Your task to perform on an android device: turn on translation in the chrome app Image 0: 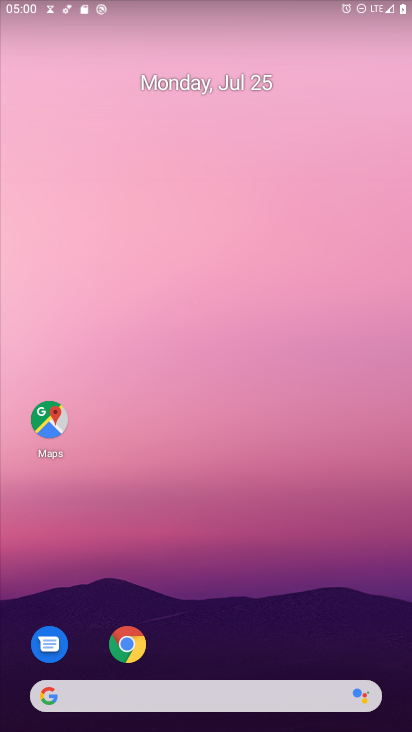
Step 0: press home button
Your task to perform on an android device: turn on translation in the chrome app Image 1: 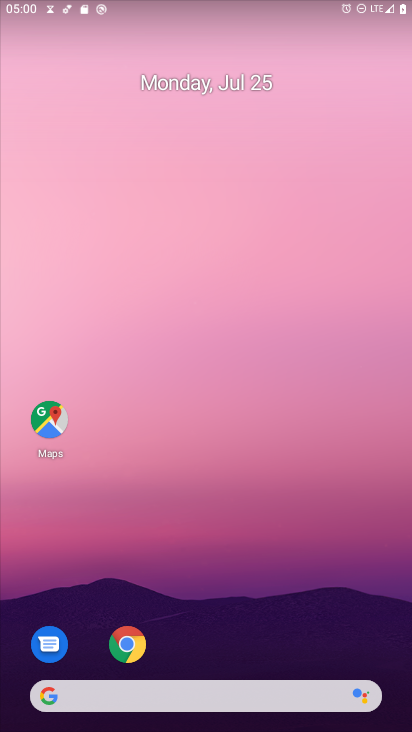
Step 1: click (130, 642)
Your task to perform on an android device: turn on translation in the chrome app Image 2: 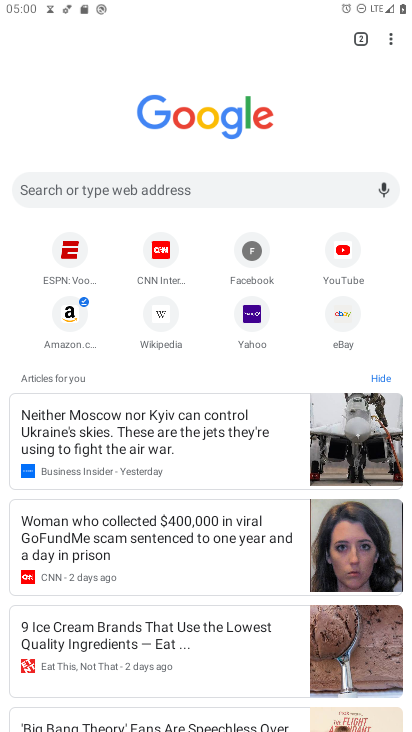
Step 2: click (385, 32)
Your task to perform on an android device: turn on translation in the chrome app Image 3: 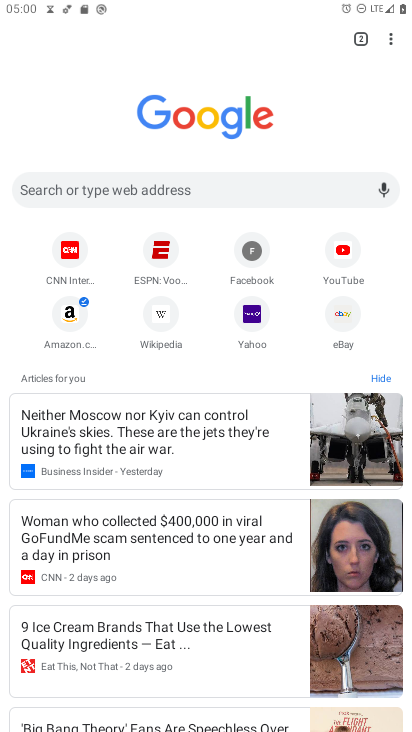
Step 3: drag from (397, 35) to (259, 335)
Your task to perform on an android device: turn on translation in the chrome app Image 4: 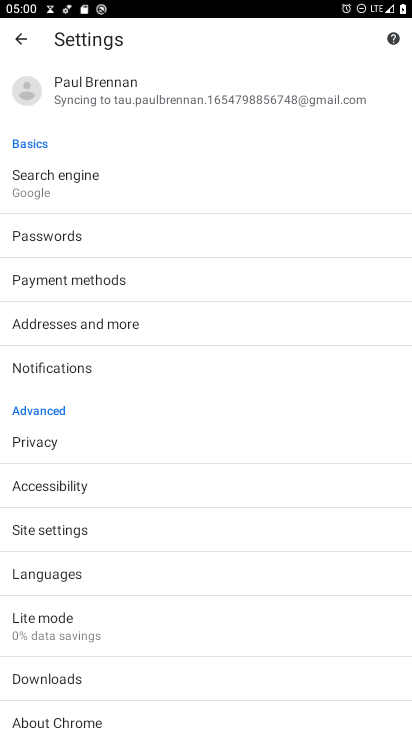
Step 4: click (54, 568)
Your task to perform on an android device: turn on translation in the chrome app Image 5: 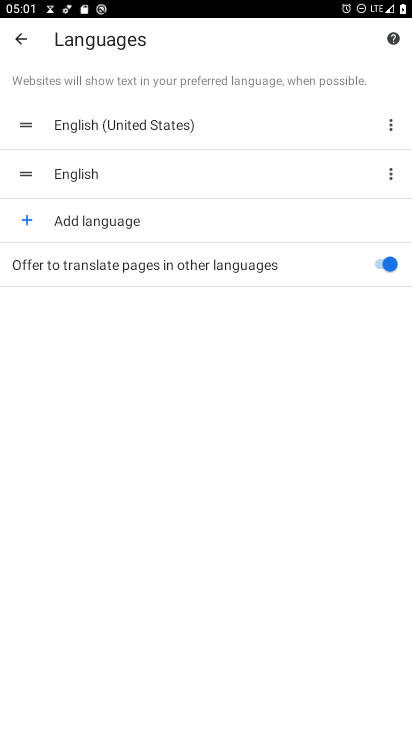
Step 5: task complete